Your task to perform on an android device: Go to Amazon Image 0: 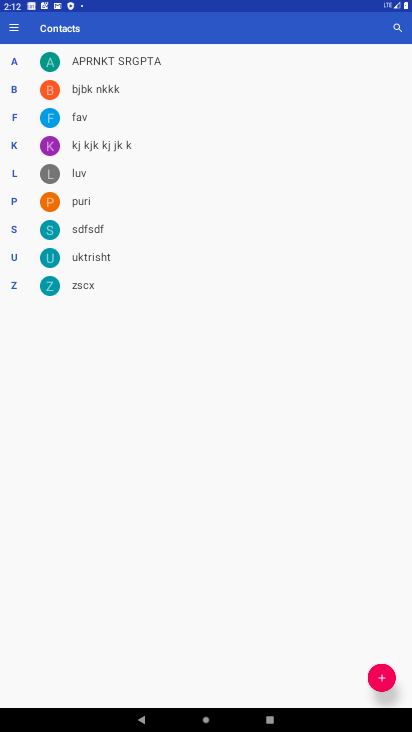
Step 0: press home button
Your task to perform on an android device: Go to Amazon Image 1: 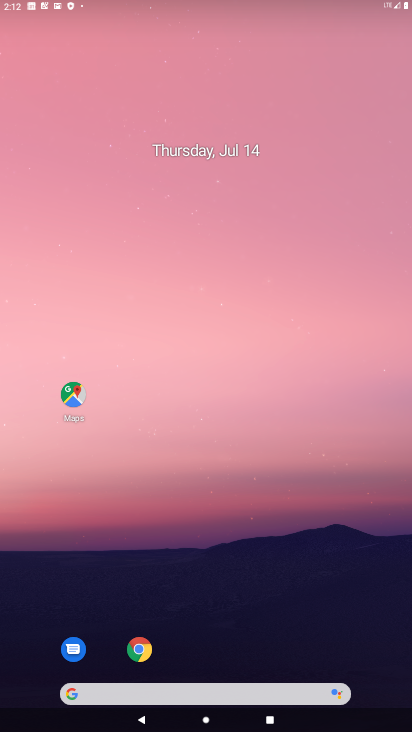
Step 1: drag from (375, 636) to (208, 88)
Your task to perform on an android device: Go to Amazon Image 2: 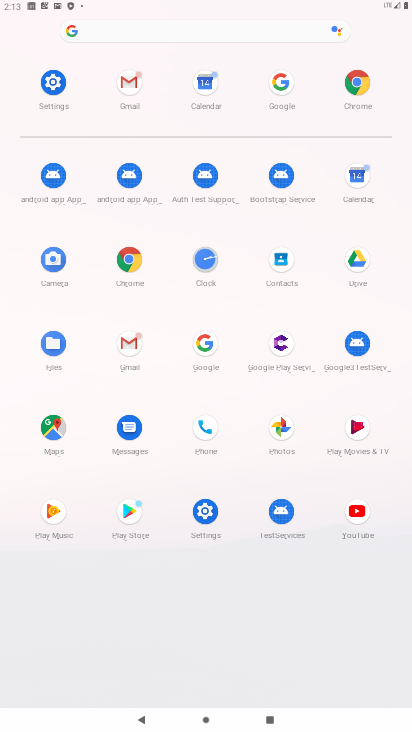
Step 2: click (205, 359)
Your task to perform on an android device: Go to Amazon Image 3: 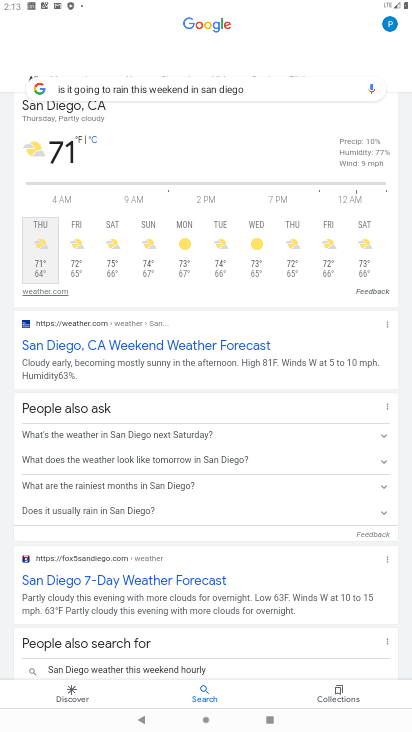
Step 3: press back button
Your task to perform on an android device: Go to Amazon Image 4: 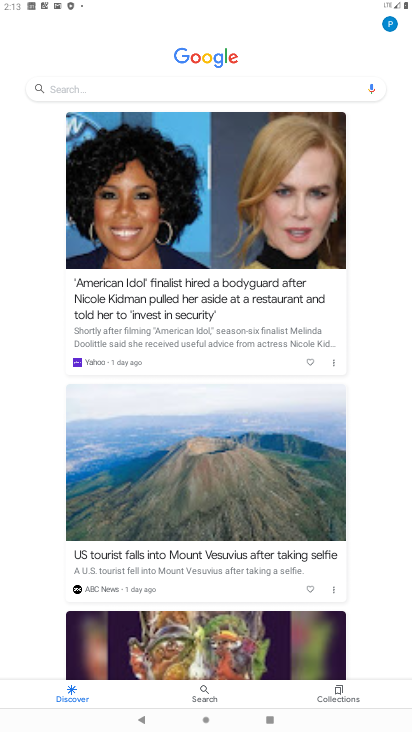
Step 4: click (113, 82)
Your task to perform on an android device: Go to Amazon Image 5: 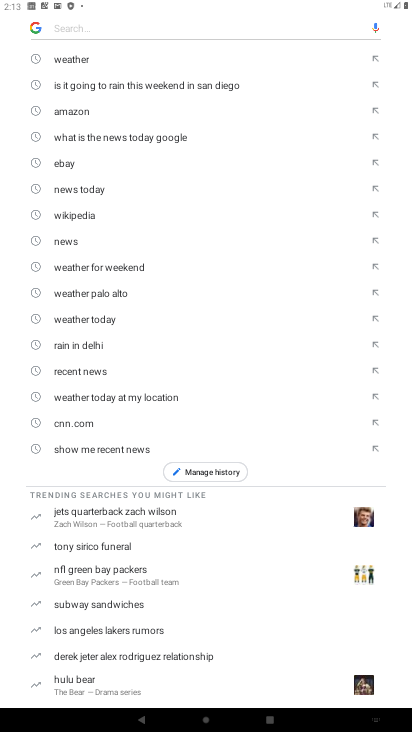
Step 5: type "Amazon"
Your task to perform on an android device: Go to Amazon Image 6: 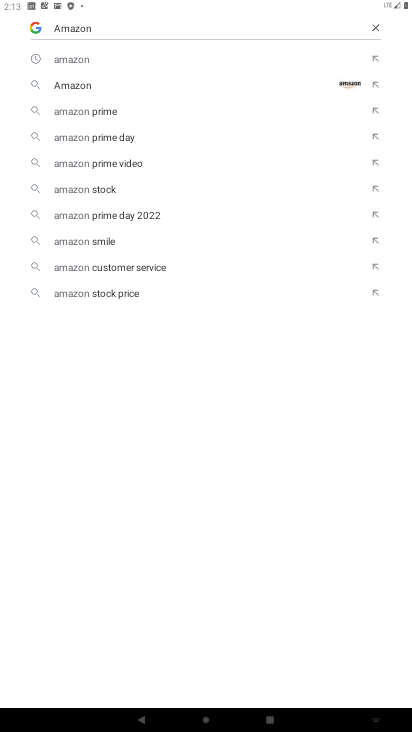
Step 6: click (74, 82)
Your task to perform on an android device: Go to Amazon Image 7: 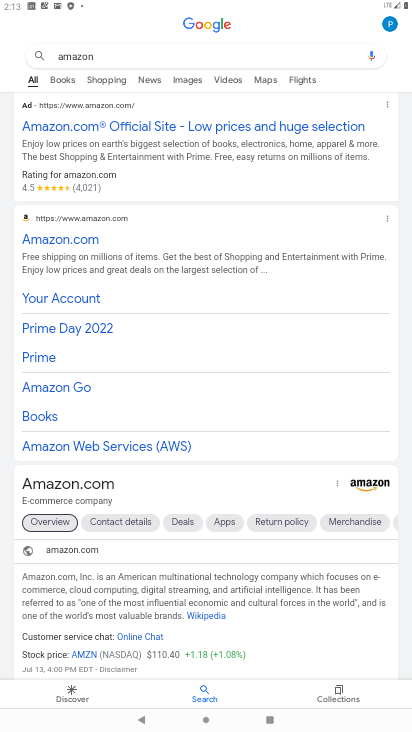
Step 7: task complete